Your task to perform on an android device: change keyboard looks Image 0: 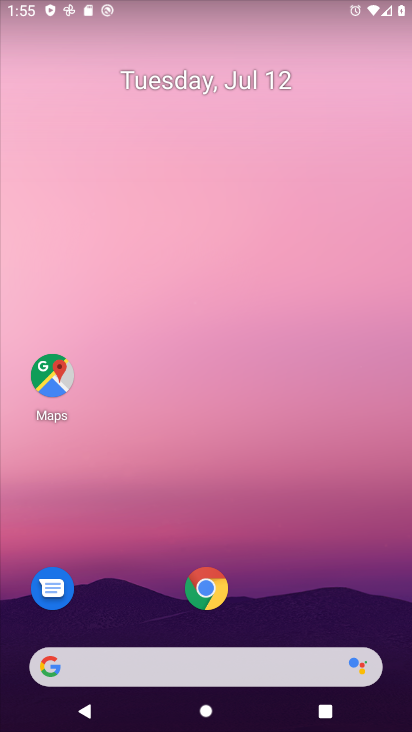
Step 0: drag from (180, 679) to (409, 170)
Your task to perform on an android device: change keyboard looks Image 1: 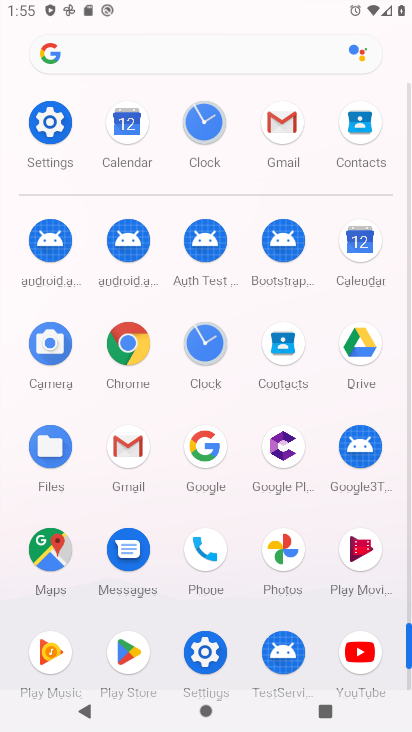
Step 1: drag from (240, 248) to (337, 76)
Your task to perform on an android device: change keyboard looks Image 2: 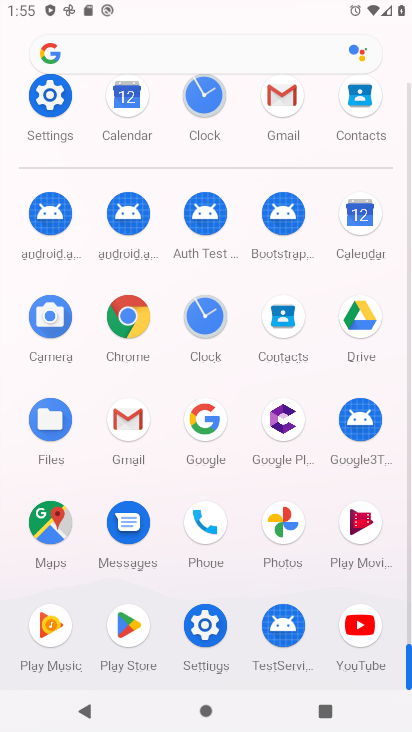
Step 2: click (67, 107)
Your task to perform on an android device: change keyboard looks Image 3: 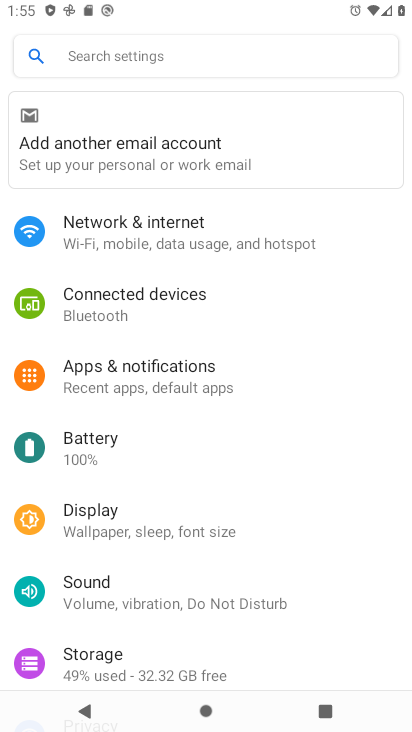
Step 3: drag from (206, 638) to (361, 192)
Your task to perform on an android device: change keyboard looks Image 4: 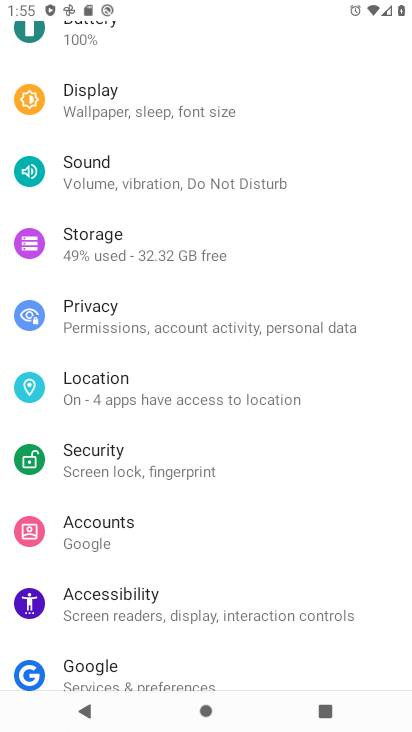
Step 4: drag from (199, 599) to (316, 267)
Your task to perform on an android device: change keyboard looks Image 5: 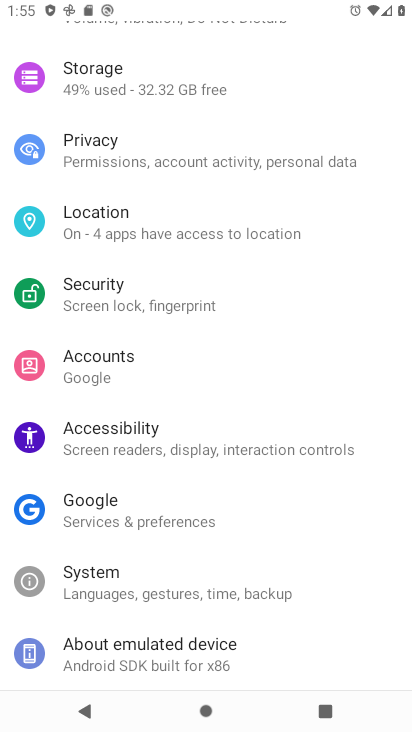
Step 5: click (151, 578)
Your task to perform on an android device: change keyboard looks Image 6: 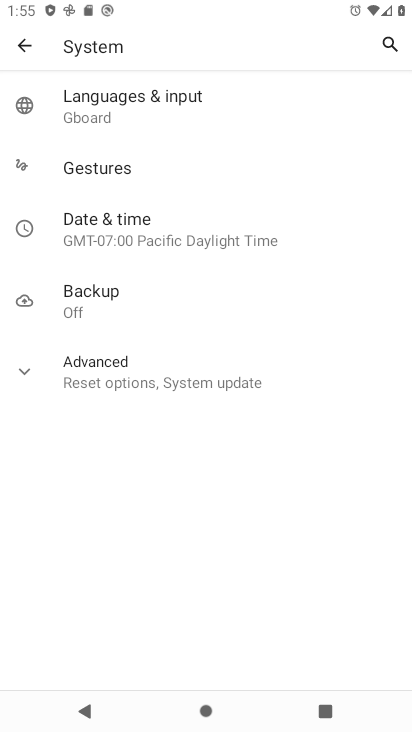
Step 6: click (112, 106)
Your task to perform on an android device: change keyboard looks Image 7: 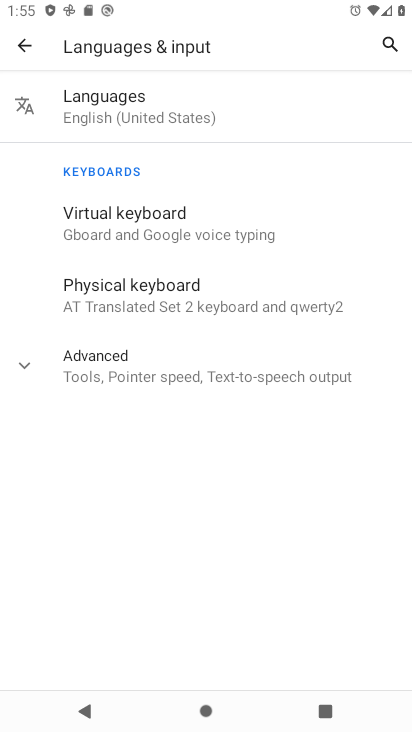
Step 7: click (115, 230)
Your task to perform on an android device: change keyboard looks Image 8: 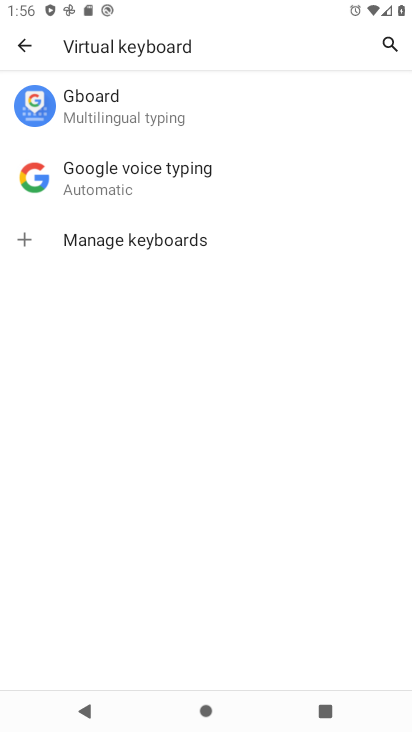
Step 8: click (95, 91)
Your task to perform on an android device: change keyboard looks Image 9: 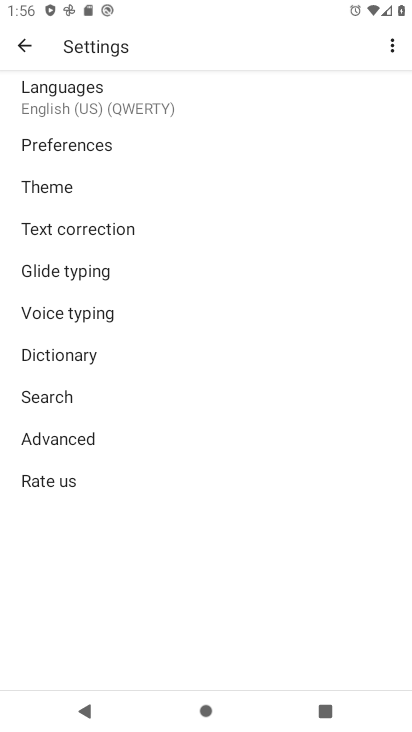
Step 9: click (60, 187)
Your task to perform on an android device: change keyboard looks Image 10: 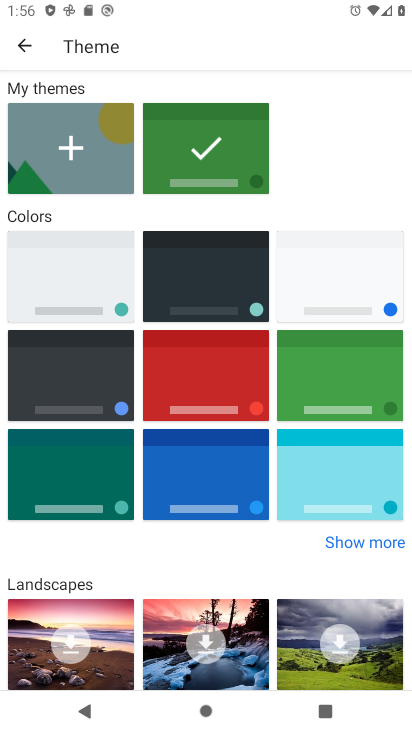
Step 10: click (197, 454)
Your task to perform on an android device: change keyboard looks Image 11: 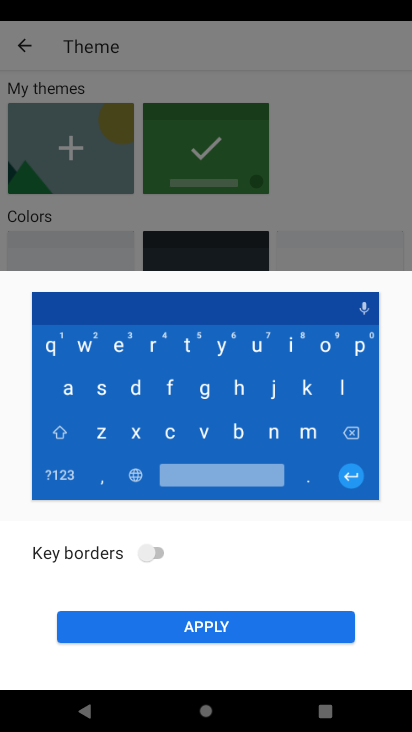
Step 11: click (209, 626)
Your task to perform on an android device: change keyboard looks Image 12: 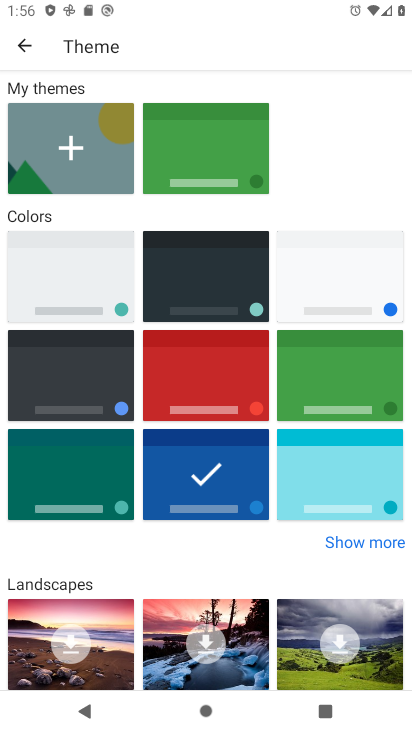
Step 12: task complete